Your task to perform on an android device: Search for "logitech g pro" on newegg, select the first entry, add it to the cart, then select checkout. Image 0: 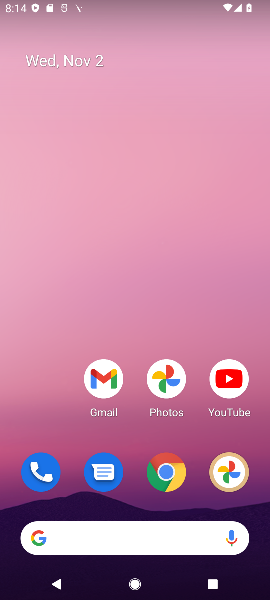
Step 0: click (39, 531)
Your task to perform on an android device: Search for "logitech g pro" on newegg, select the first entry, add it to the cart, then select checkout. Image 1: 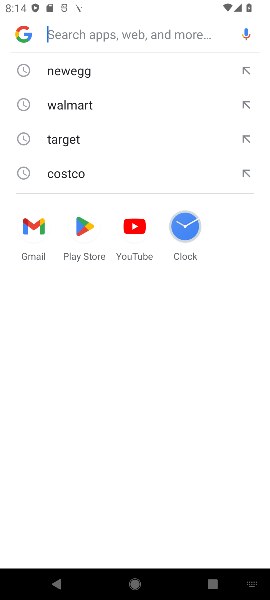
Step 1: click (100, 75)
Your task to perform on an android device: Search for "logitech g pro" on newegg, select the first entry, add it to the cart, then select checkout. Image 2: 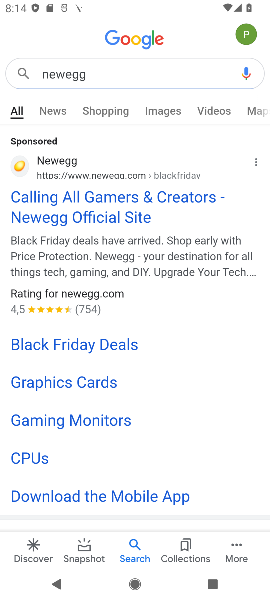
Step 2: click (104, 203)
Your task to perform on an android device: Search for "logitech g pro" on newegg, select the first entry, add it to the cart, then select checkout. Image 3: 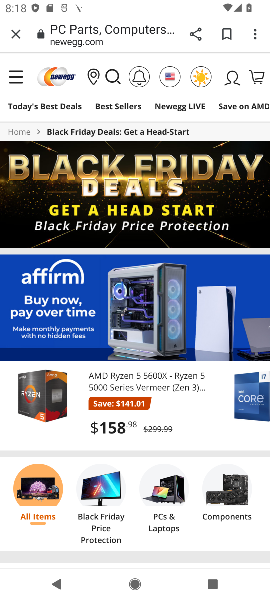
Step 3: task complete